Your task to perform on an android device: stop showing notifications on the lock screen Image 0: 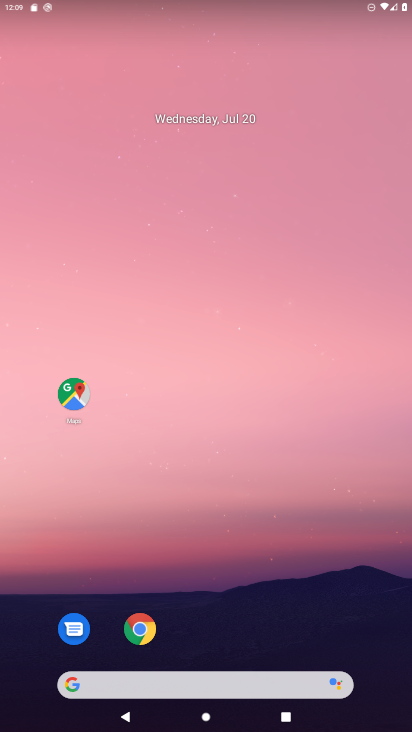
Step 0: drag from (190, 641) to (267, 219)
Your task to perform on an android device: stop showing notifications on the lock screen Image 1: 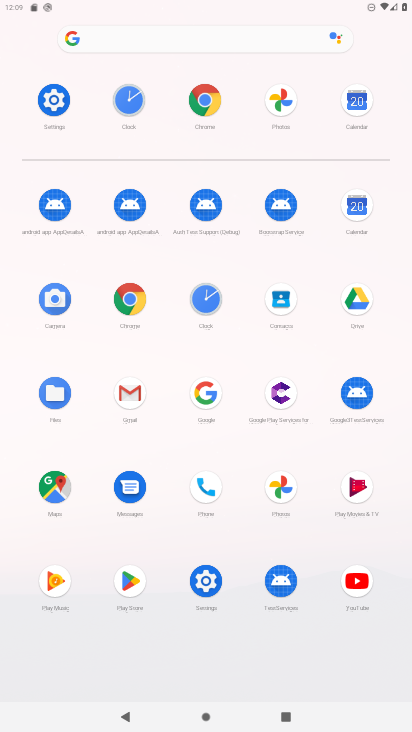
Step 1: click (205, 585)
Your task to perform on an android device: stop showing notifications on the lock screen Image 2: 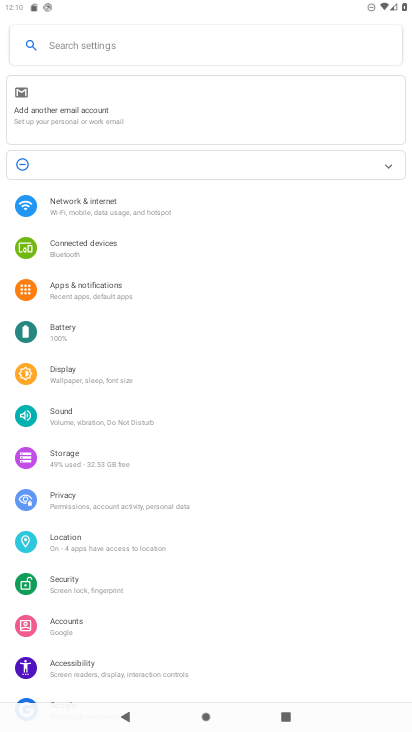
Step 2: click (120, 295)
Your task to perform on an android device: stop showing notifications on the lock screen Image 3: 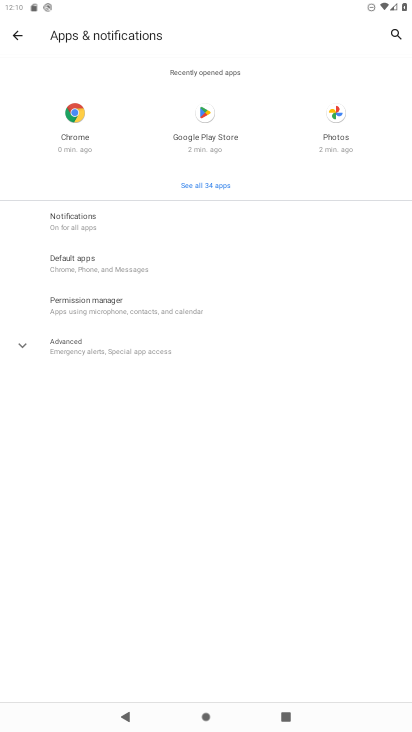
Step 3: click (111, 235)
Your task to perform on an android device: stop showing notifications on the lock screen Image 4: 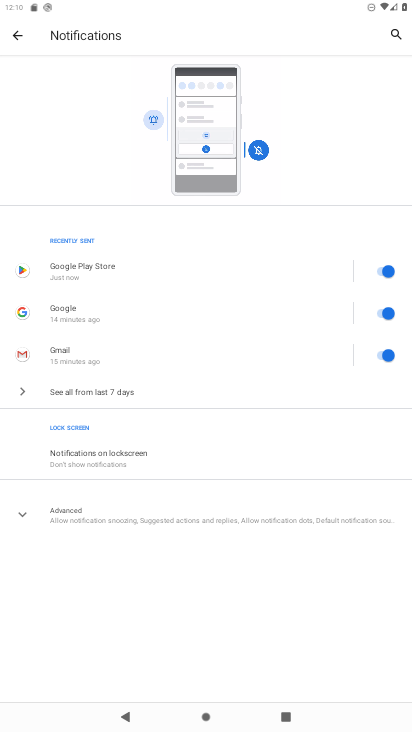
Step 4: click (79, 458)
Your task to perform on an android device: stop showing notifications on the lock screen Image 5: 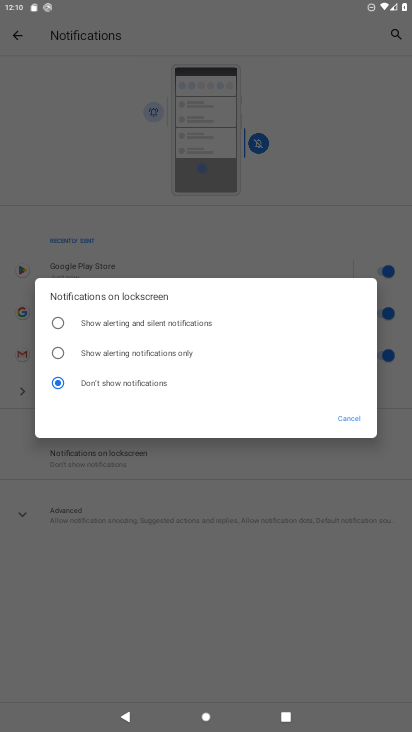
Step 5: task complete